Your task to perform on an android device: open chrome privacy settings Image 0: 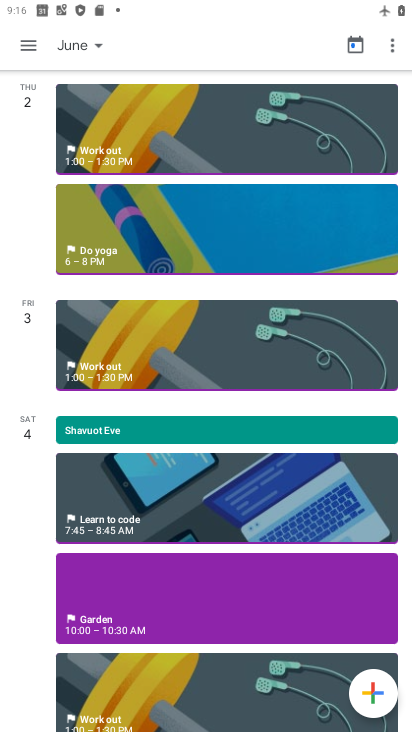
Step 0: press home button
Your task to perform on an android device: open chrome privacy settings Image 1: 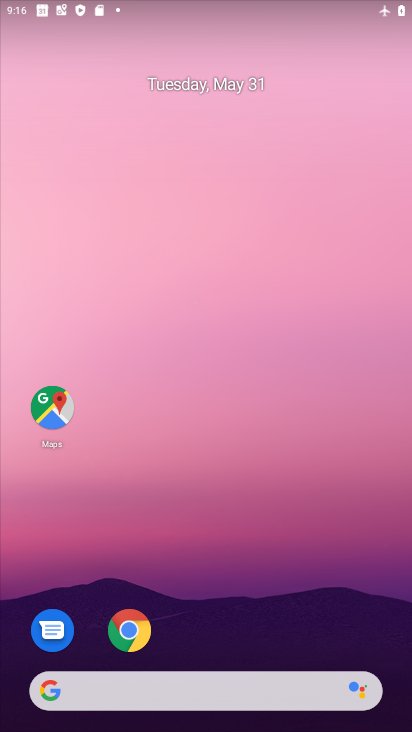
Step 1: drag from (197, 577) to (235, 191)
Your task to perform on an android device: open chrome privacy settings Image 2: 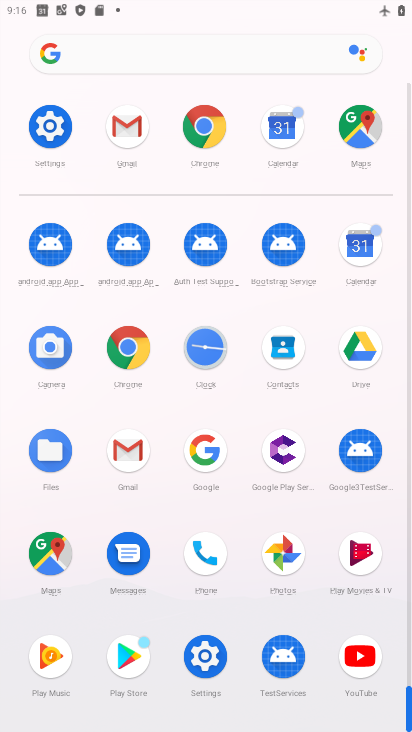
Step 2: click (38, 126)
Your task to perform on an android device: open chrome privacy settings Image 3: 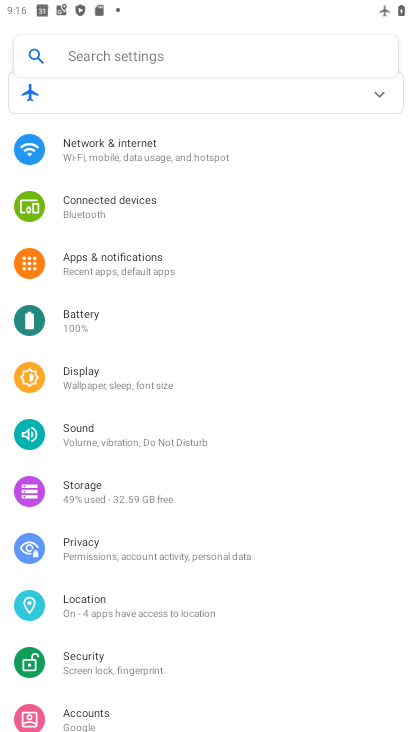
Step 3: drag from (175, 641) to (197, 427)
Your task to perform on an android device: open chrome privacy settings Image 4: 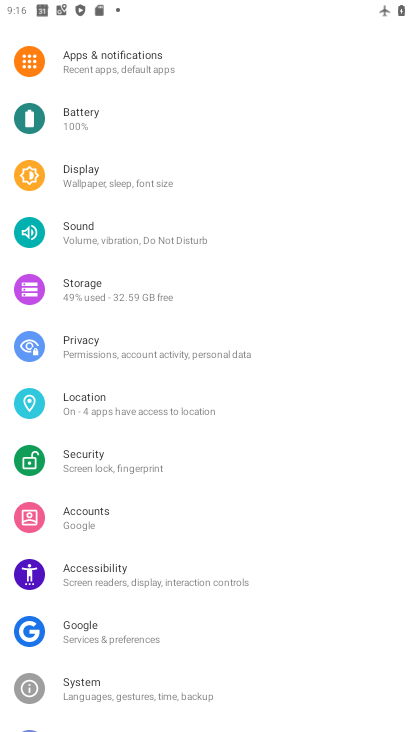
Step 4: press home button
Your task to perform on an android device: open chrome privacy settings Image 5: 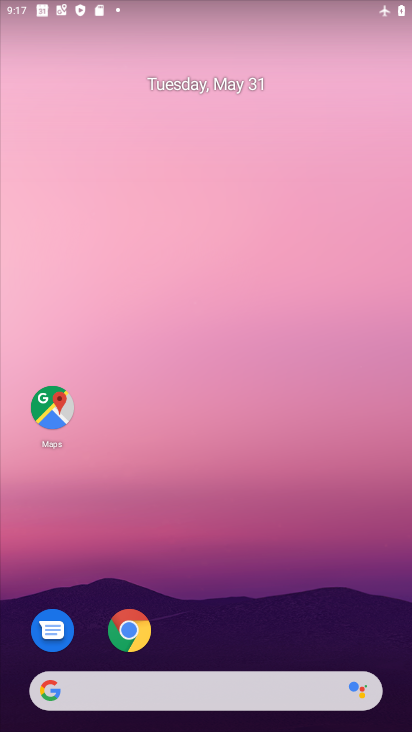
Step 5: drag from (243, 641) to (249, 597)
Your task to perform on an android device: open chrome privacy settings Image 6: 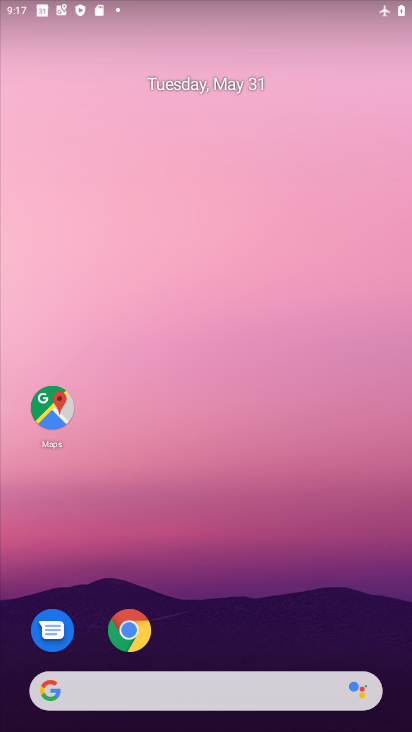
Step 6: click (130, 610)
Your task to perform on an android device: open chrome privacy settings Image 7: 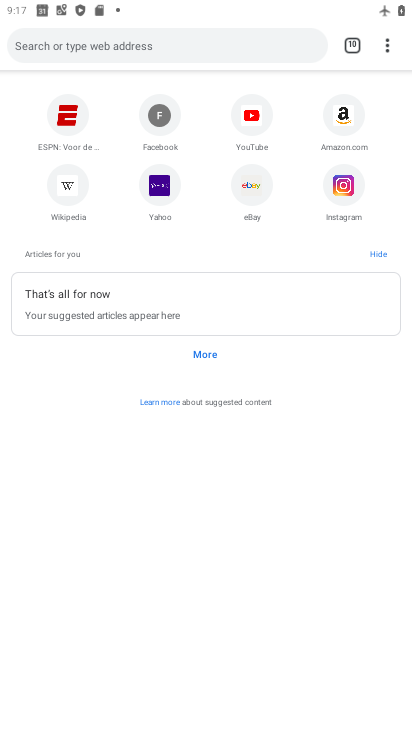
Step 7: click (382, 49)
Your task to perform on an android device: open chrome privacy settings Image 8: 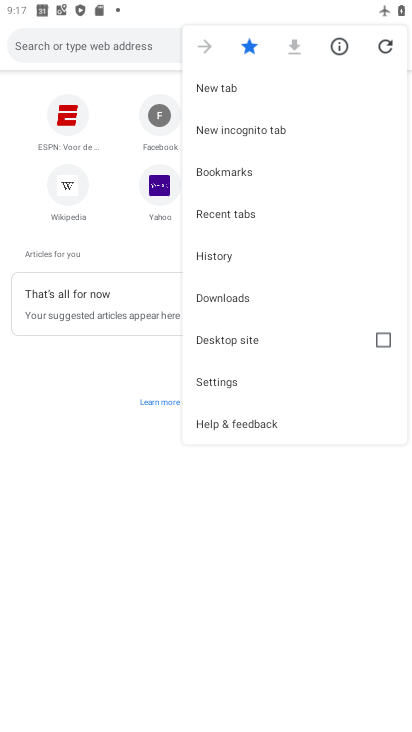
Step 8: click (238, 381)
Your task to perform on an android device: open chrome privacy settings Image 9: 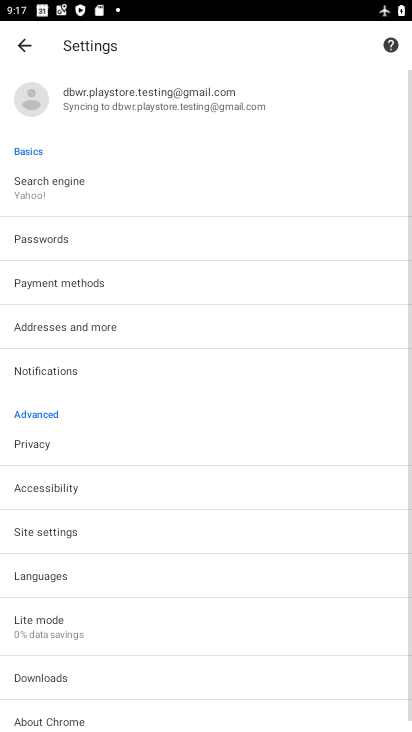
Step 9: click (70, 441)
Your task to perform on an android device: open chrome privacy settings Image 10: 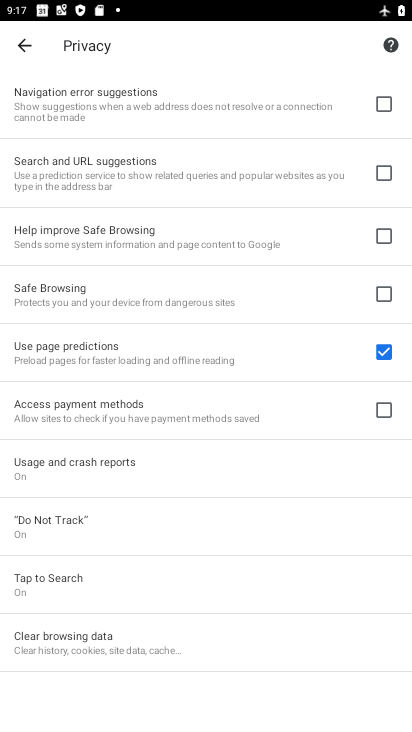
Step 10: task complete